Your task to perform on an android device: check google app version Image 0: 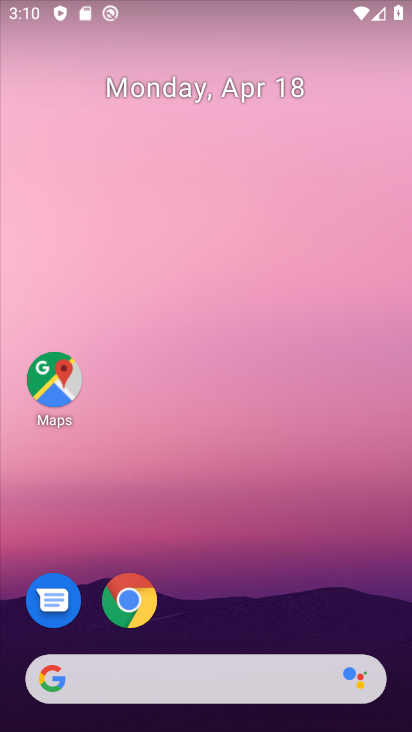
Step 0: drag from (284, 100) to (284, 64)
Your task to perform on an android device: check google app version Image 1: 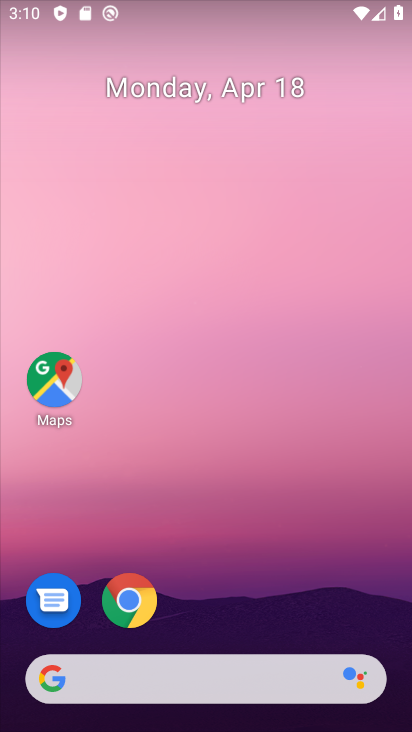
Step 1: drag from (338, 313) to (305, 108)
Your task to perform on an android device: check google app version Image 2: 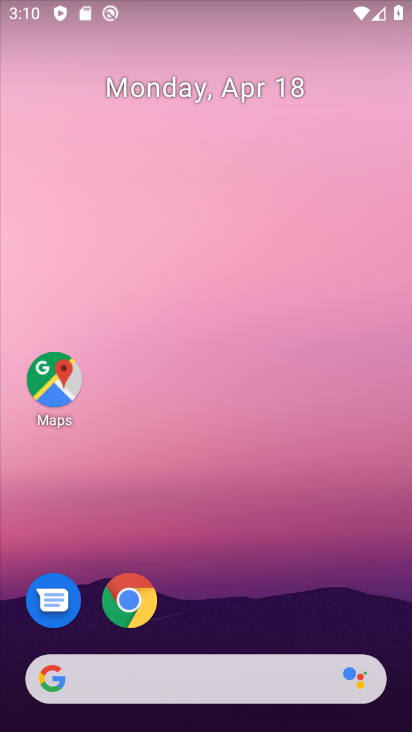
Step 2: drag from (339, 496) to (293, 77)
Your task to perform on an android device: check google app version Image 3: 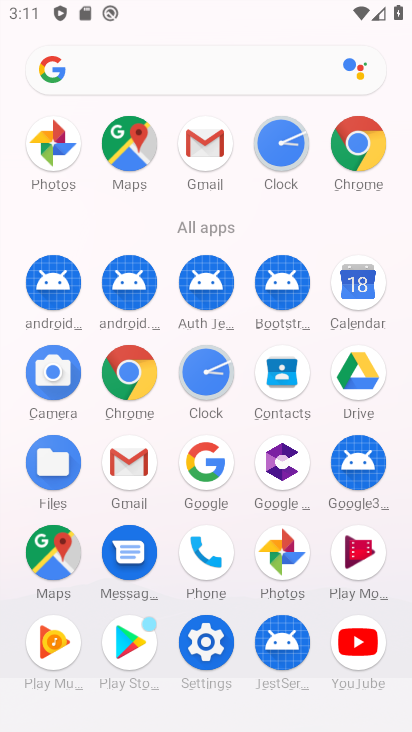
Step 3: drag from (235, 596) to (213, 314)
Your task to perform on an android device: check google app version Image 4: 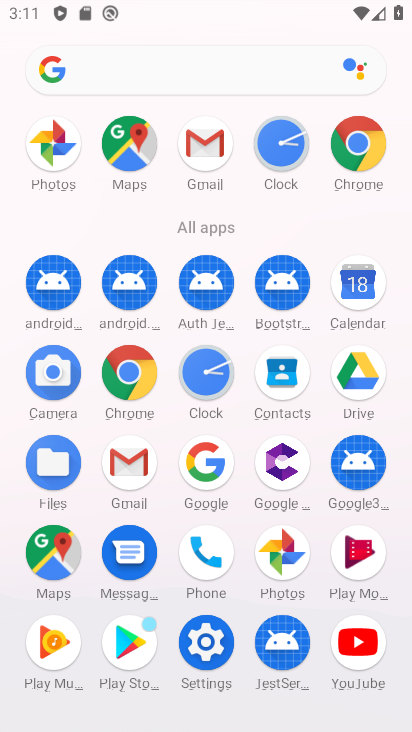
Step 4: click (211, 464)
Your task to perform on an android device: check google app version Image 5: 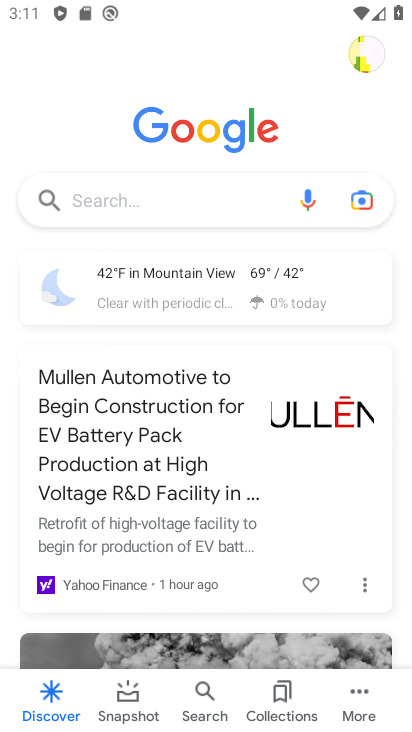
Step 5: click (348, 698)
Your task to perform on an android device: check google app version Image 6: 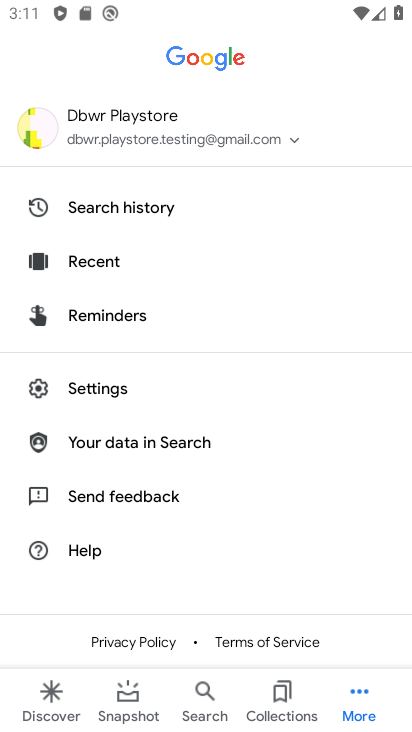
Step 6: click (74, 389)
Your task to perform on an android device: check google app version Image 7: 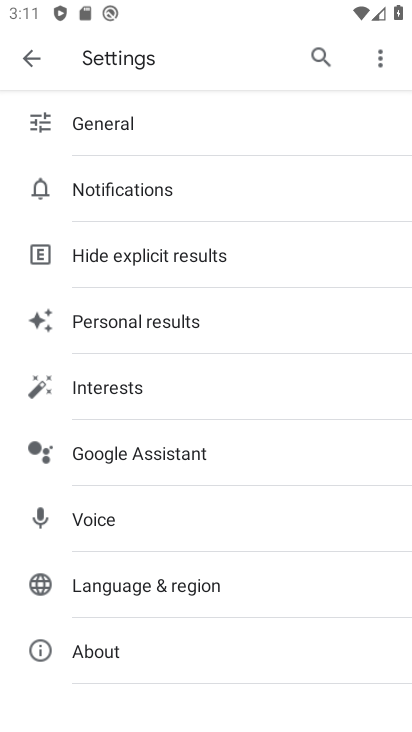
Step 7: click (82, 645)
Your task to perform on an android device: check google app version Image 8: 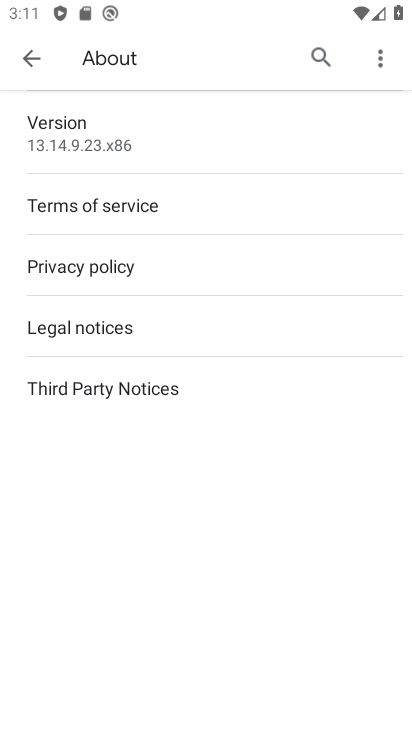
Step 8: click (128, 147)
Your task to perform on an android device: check google app version Image 9: 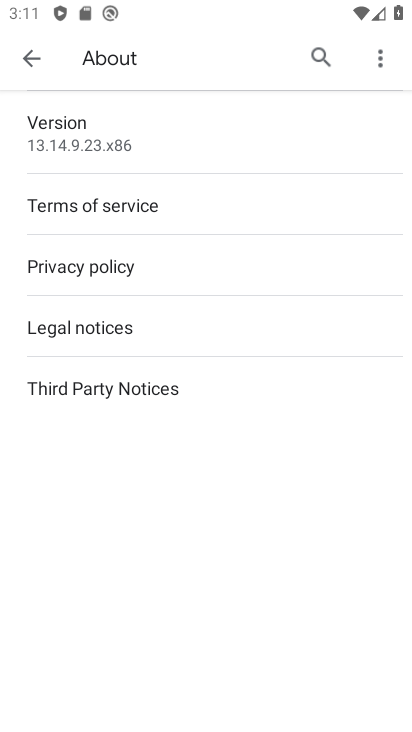
Step 9: task complete